Your task to perform on an android device: What's the weather? Image 0: 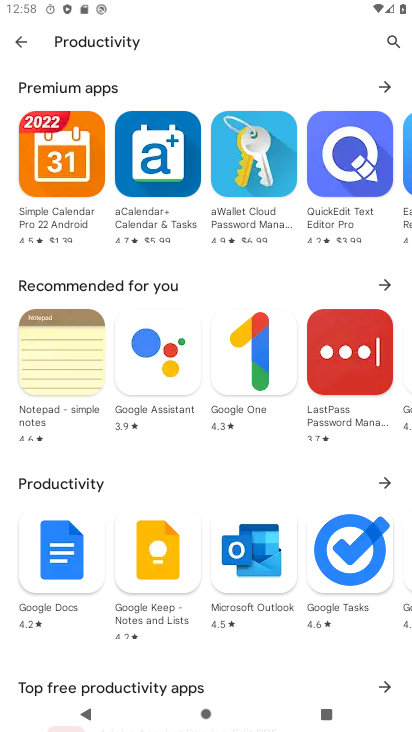
Step 0: press home button
Your task to perform on an android device: What's the weather? Image 1: 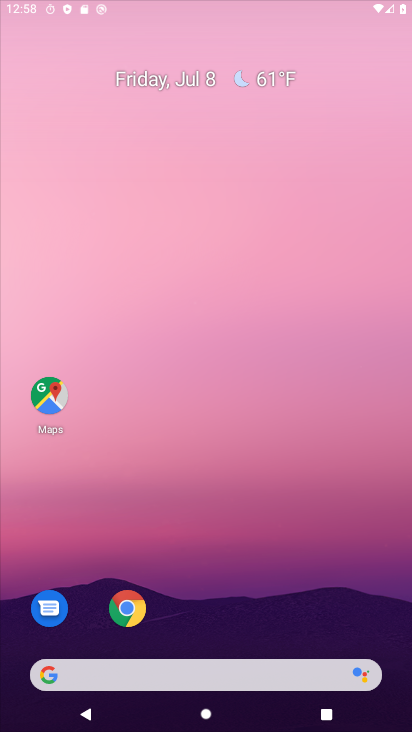
Step 1: drag from (252, 429) to (291, 119)
Your task to perform on an android device: What's the weather? Image 2: 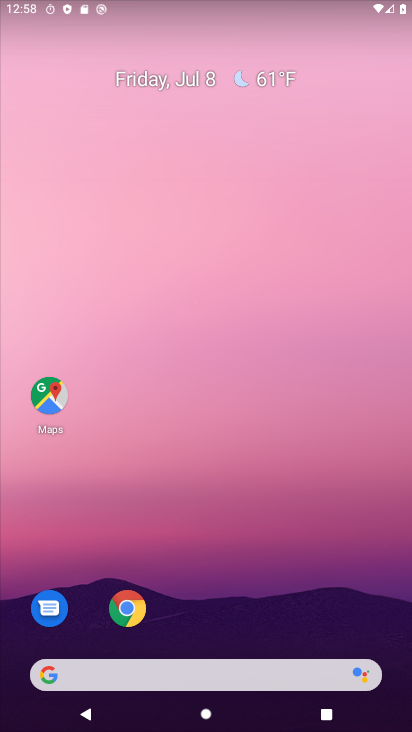
Step 2: drag from (210, 646) to (307, 96)
Your task to perform on an android device: What's the weather? Image 3: 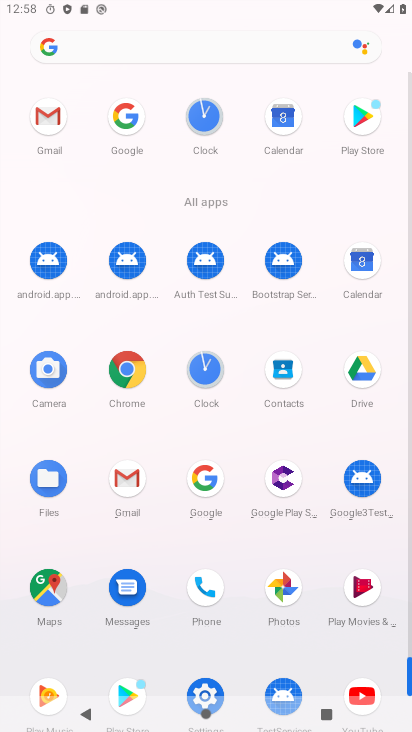
Step 3: click (125, 115)
Your task to perform on an android device: What's the weather? Image 4: 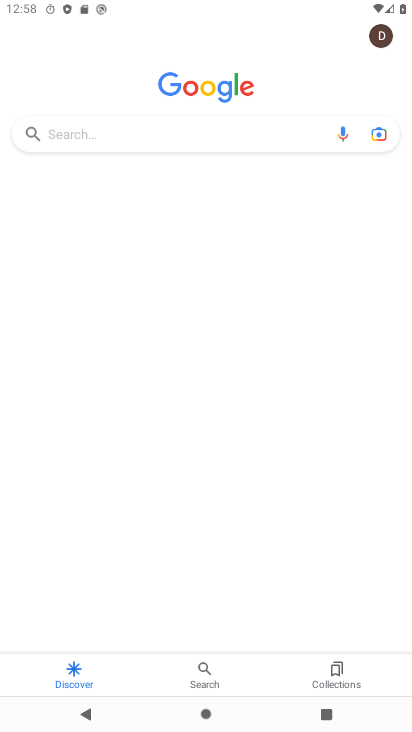
Step 4: click (128, 132)
Your task to perform on an android device: What's the weather? Image 5: 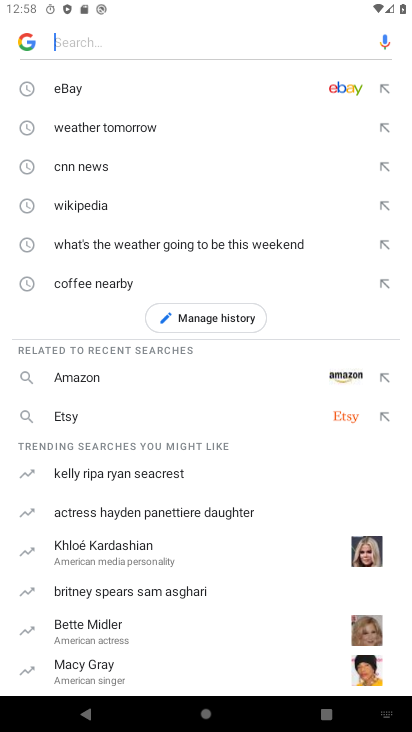
Step 5: type "whats the weather"
Your task to perform on an android device: What's the weather? Image 6: 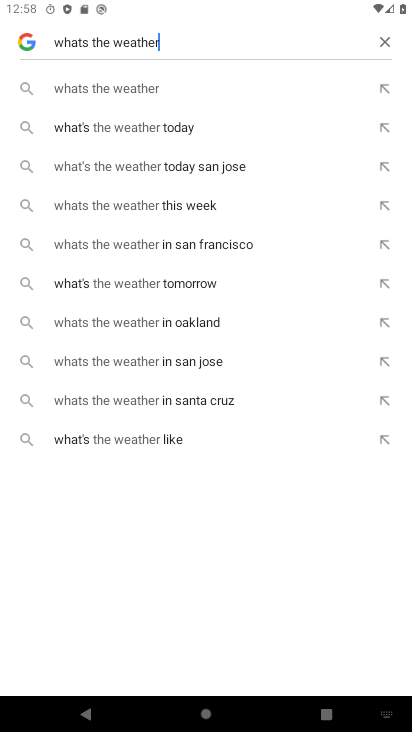
Step 6: click (90, 90)
Your task to perform on an android device: What's the weather? Image 7: 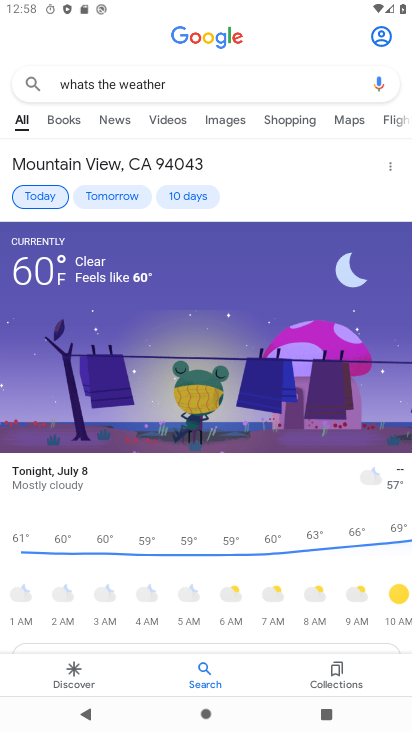
Step 7: task complete